Your task to perform on an android device: Go to wifi settings Image 0: 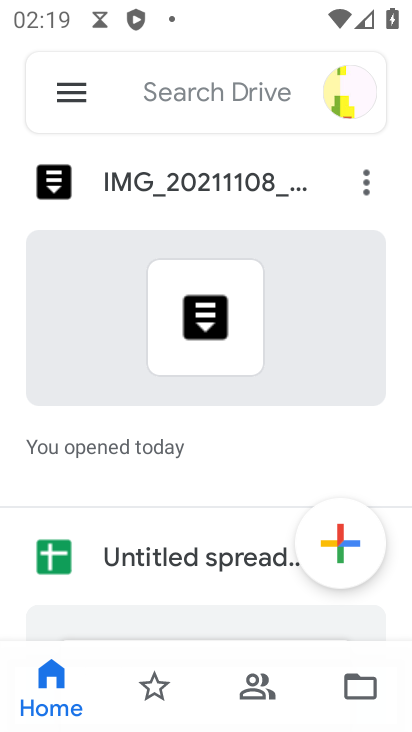
Step 0: press home button
Your task to perform on an android device: Go to wifi settings Image 1: 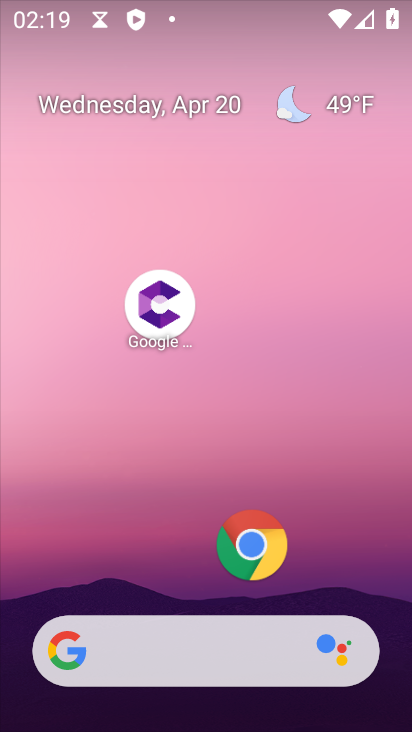
Step 1: drag from (157, 526) to (265, 121)
Your task to perform on an android device: Go to wifi settings Image 2: 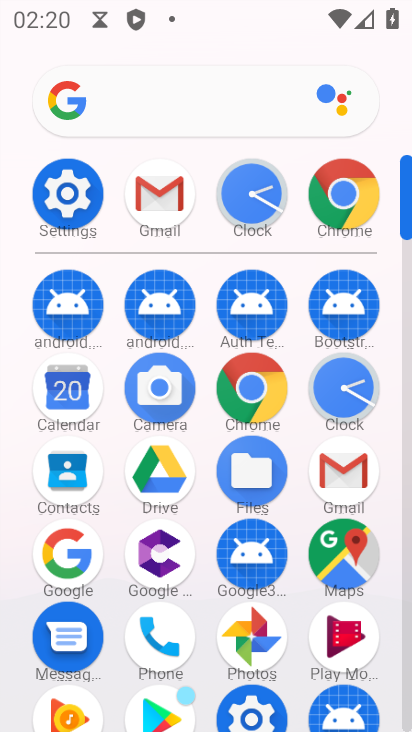
Step 2: click (65, 193)
Your task to perform on an android device: Go to wifi settings Image 3: 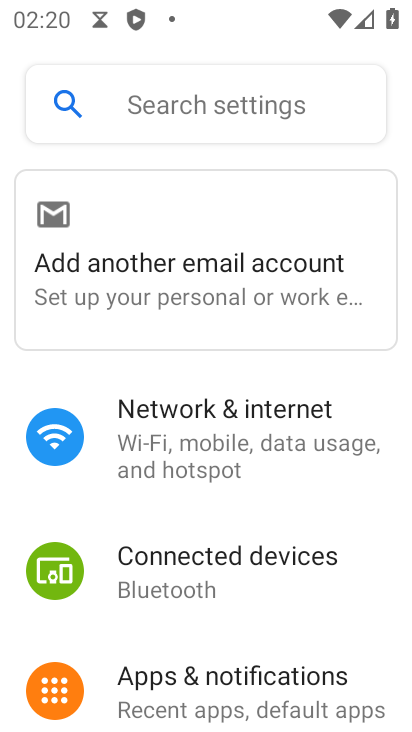
Step 3: click (207, 419)
Your task to perform on an android device: Go to wifi settings Image 4: 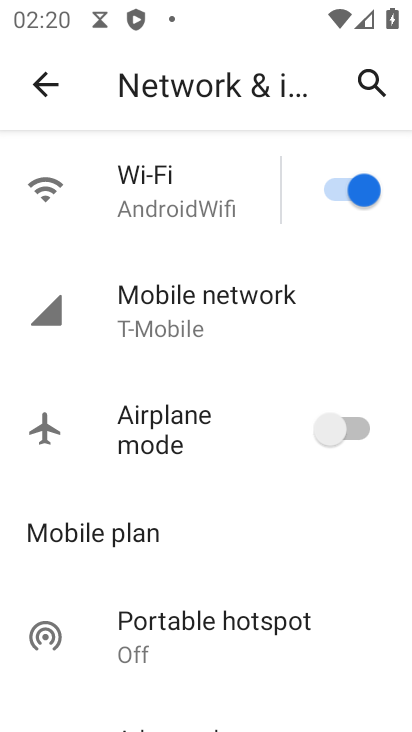
Step 4: click (148, 177)
Your task to perform on an android device: Go to wifi settings Image 5: 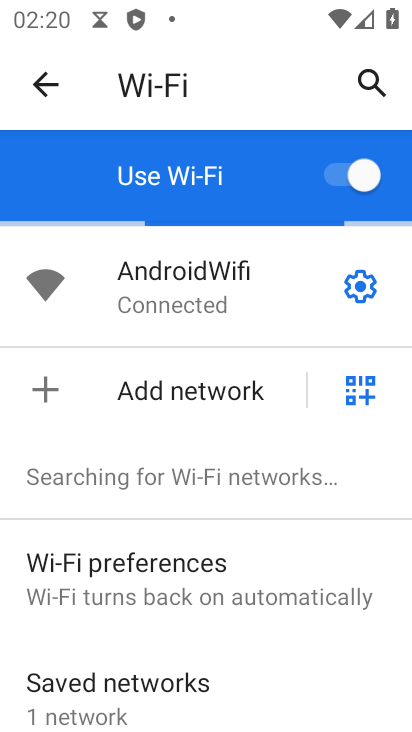
Step 5: click (367, 286)
Your task to perform on an android device: Go to wifi settings Image 6: 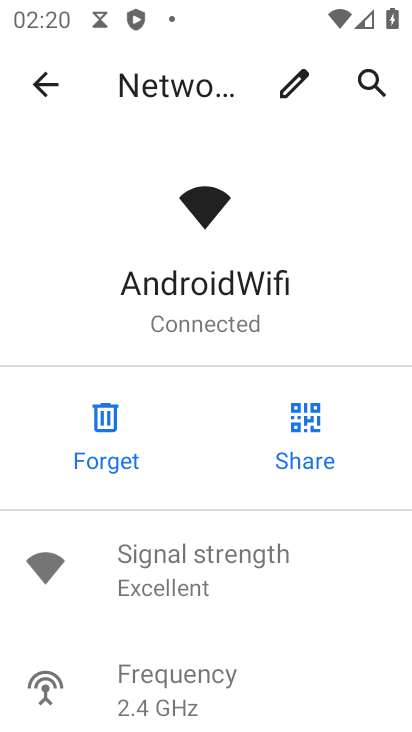
Step 6: task complete